Your task to perform on an android device: install app "Yahoo Mail" Image 0: 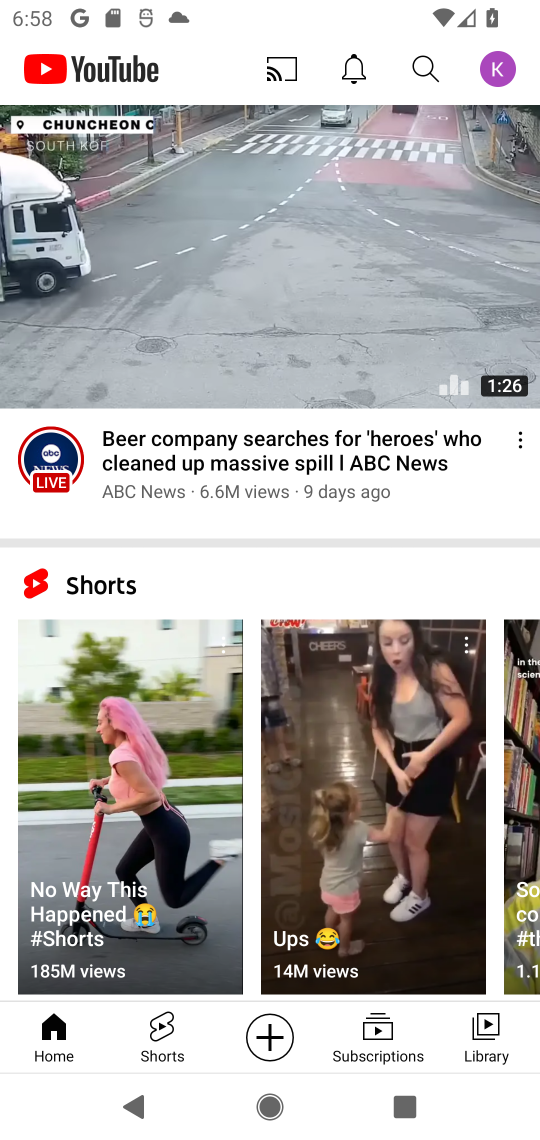
Step 0: press home button
Your task to perform on an android device: install app "Yahoo Mail" Image 1: 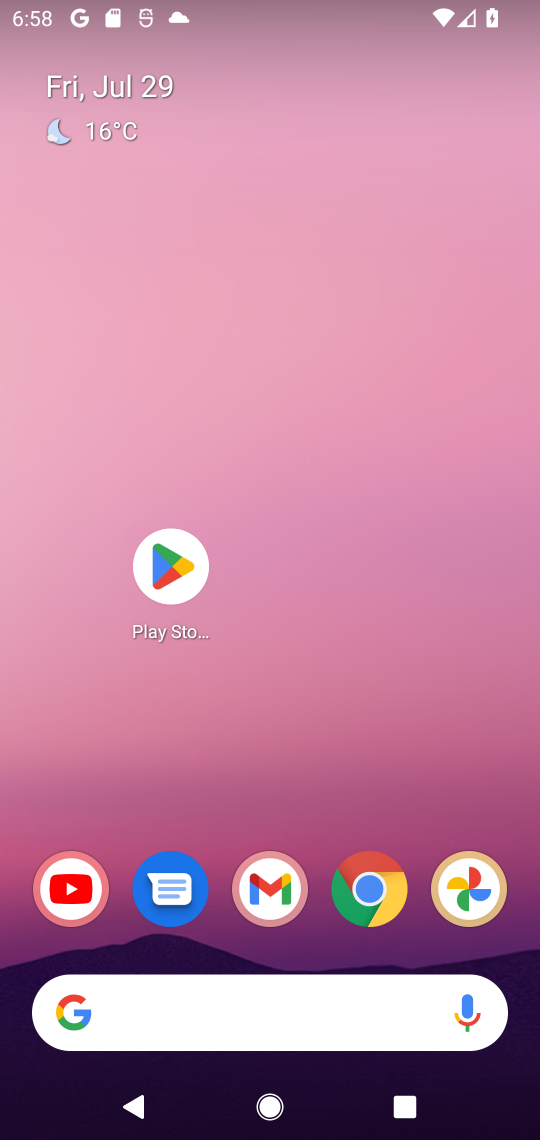
Step 1: click (178, 574)
Your task to perform on an android device: install app "Yahoo Mail" Image 2: 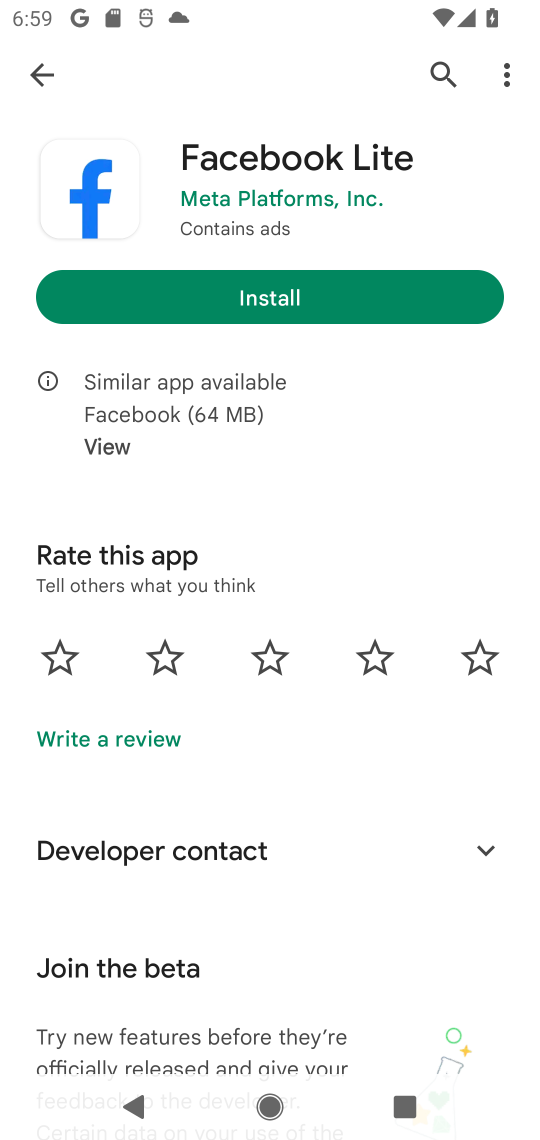
Step 2: click (432, 72)
Your task to perform on an android device: install app "Yahoo Mail" Image 3: 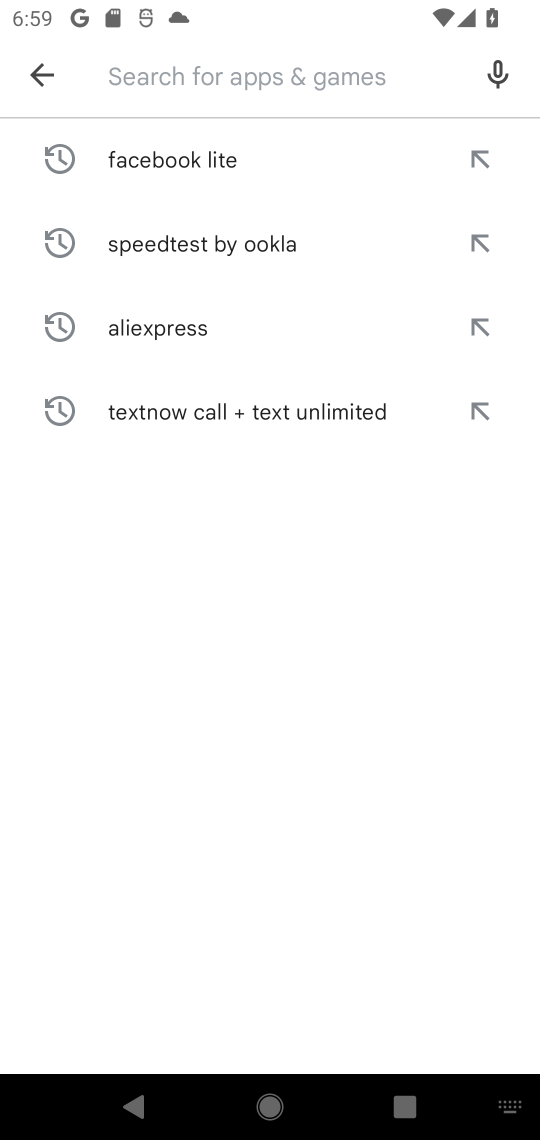
Step 3: type "Yahoo Mail"
Your task to perform on an android device: install app "Yahoo Mail" Image 4: 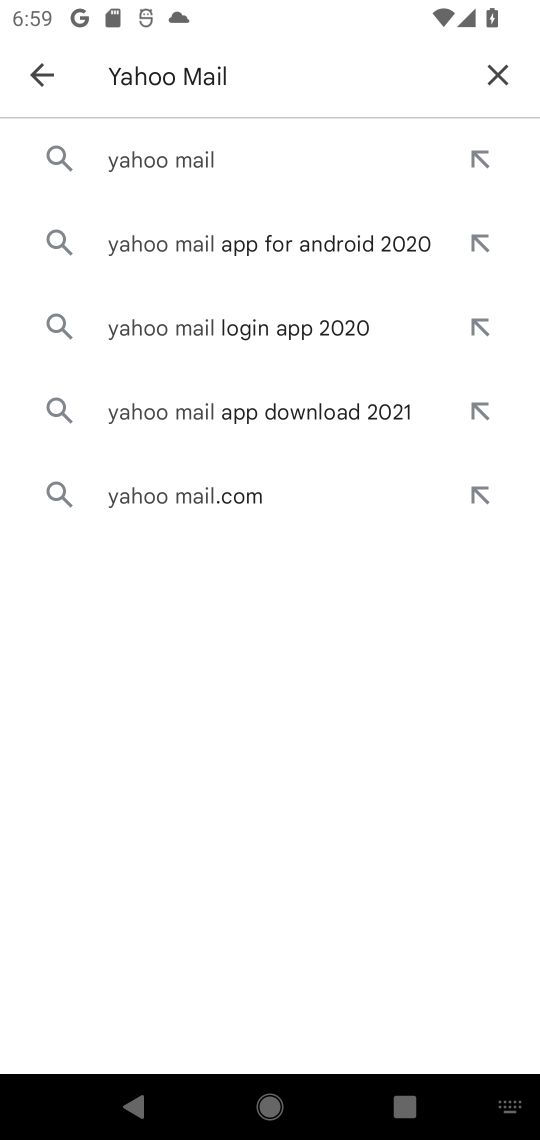
Step 4: click (186, 158)
Your task to perform on an android device: install app "Yahoo Mail" Image 5: 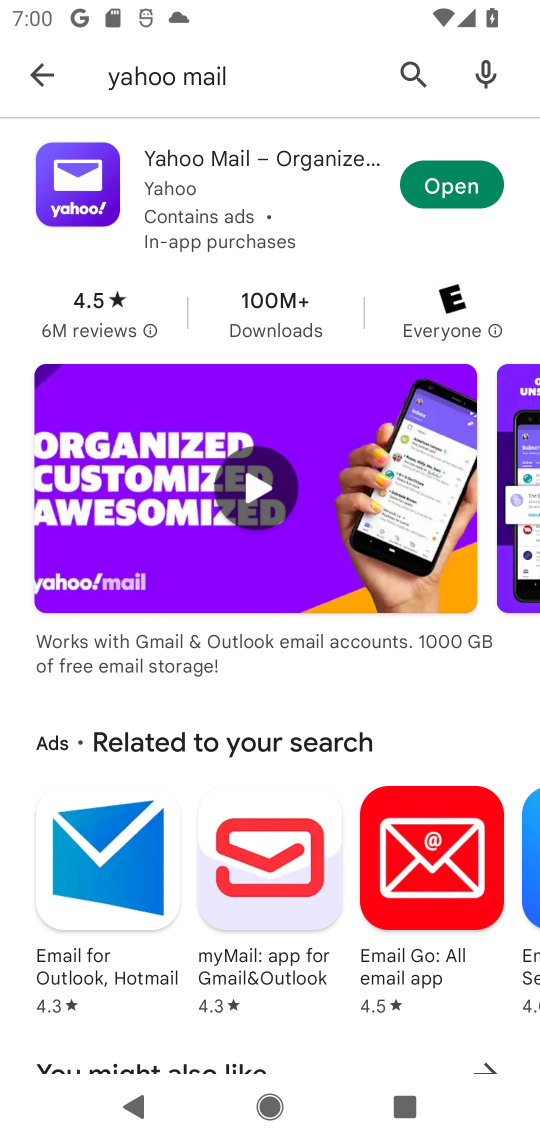
Step 5: task complete